Your task to perform on an android device: empty trash in the gmail app Image 0: 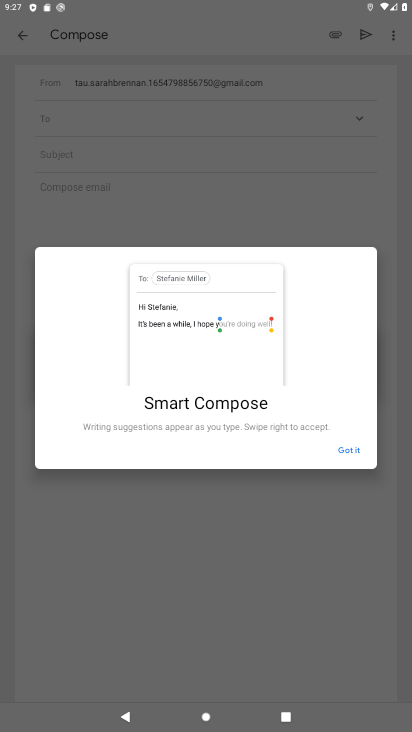
Step 0: press home button
Your task to perform on an android device: empty trash in the gmail app Image 1: 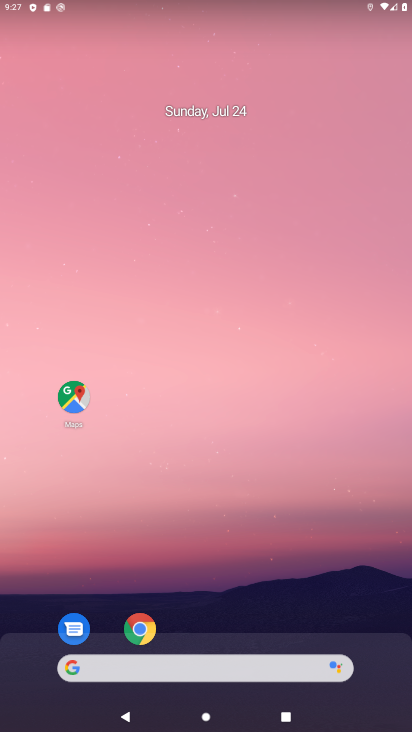
Step 1: drag from (215, 683) to (164, 85)
Your task to perform on an android device: empty trash in the gmail app Image 2: 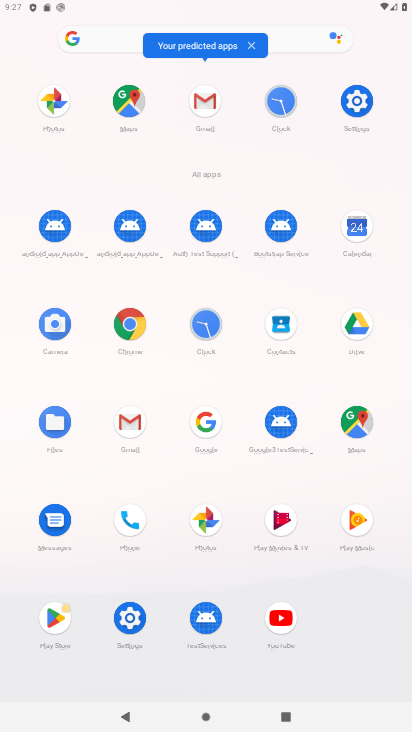
Step 2: click (207, 100)
Your task to perform on an android device: empty trash in the gmail app Image 3: 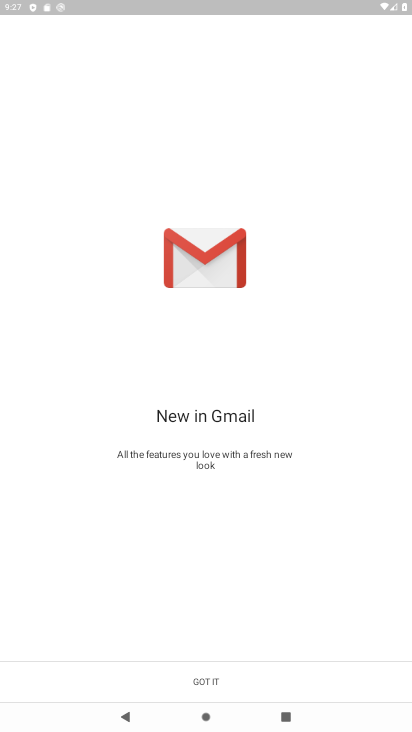
Step 3: click (207, 686)
Your task to perform on an android device: empty trash in the gmail app Image 4: 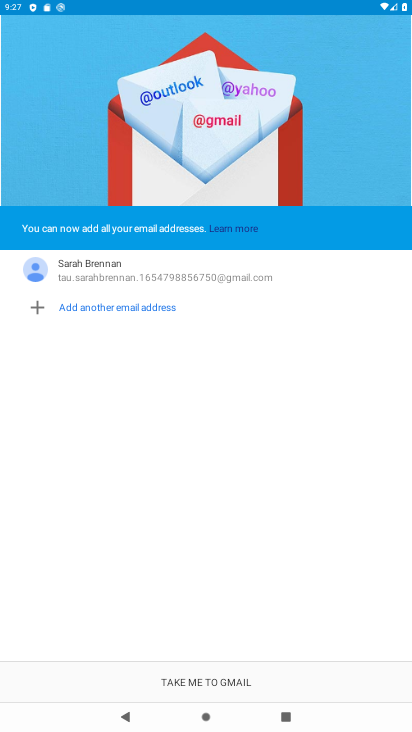
Step 4: click (207, 686)
Your task to perform on an android device: empty trash in the gmail app Image 5: 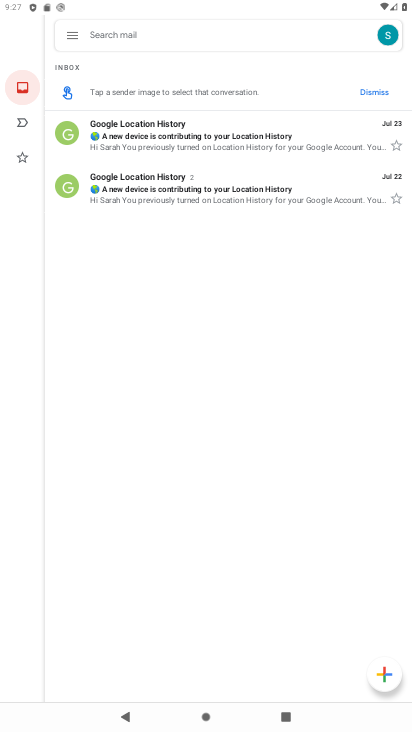
Step 5: click (72, 32)
Your task to perform on an android device: empty trash in the gmail app Image 6: 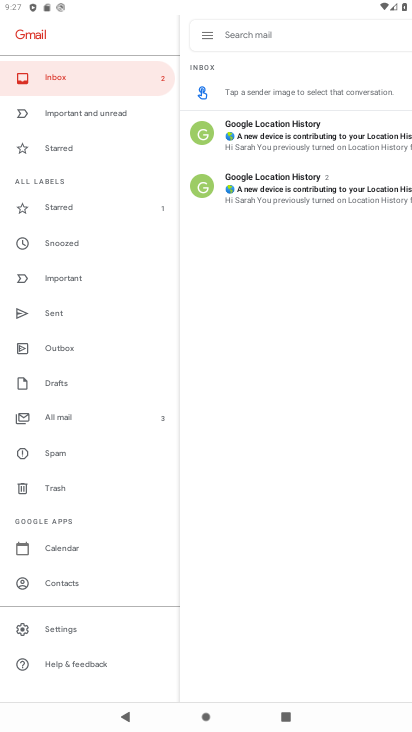
Step 6: click (56, 486)
Your task to perform on an android device: empty trash in the gmail app Image 7: 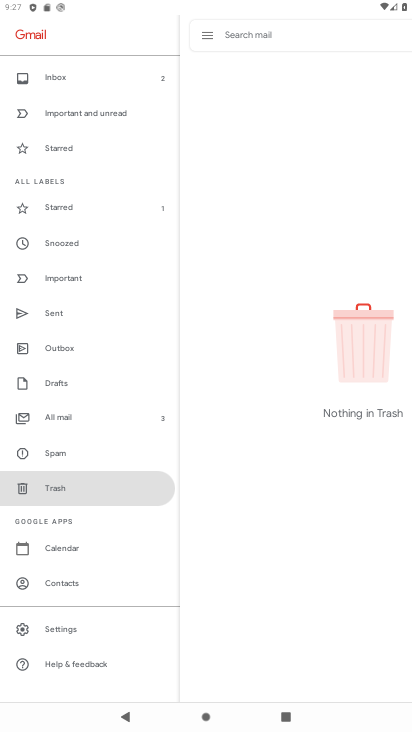
Step 7: task complete